Your task to perform on an android device: What's on my calendar today? Image 0: 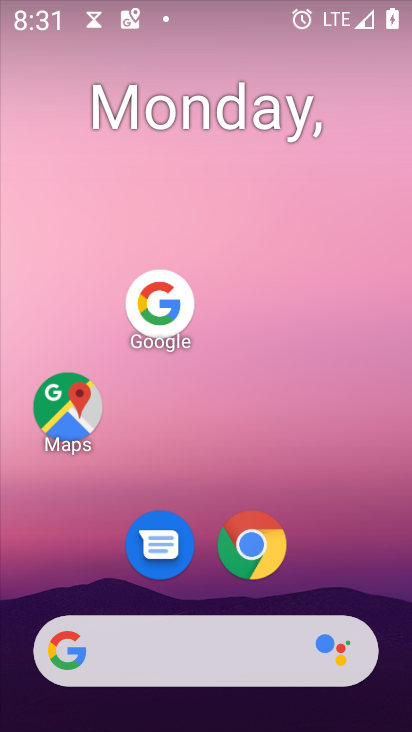
Step 0: press home button
Your task to perform on an android device: What's on my calendar today? Image 1: 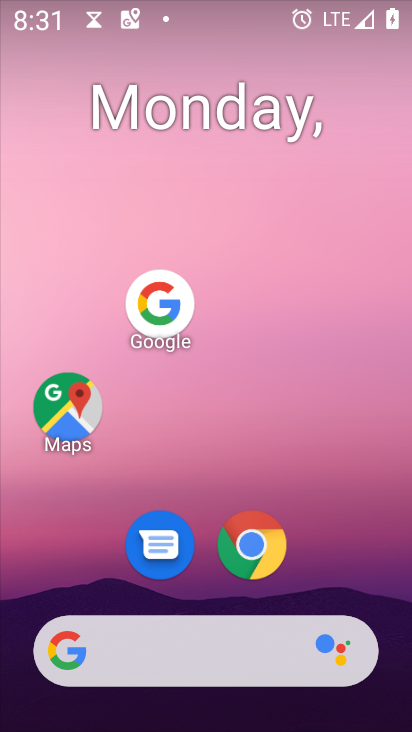
Step 1: drag from (192, 643) to (343, 104)
Your task to perform on an android device: What's on my calendar today? Image 2: 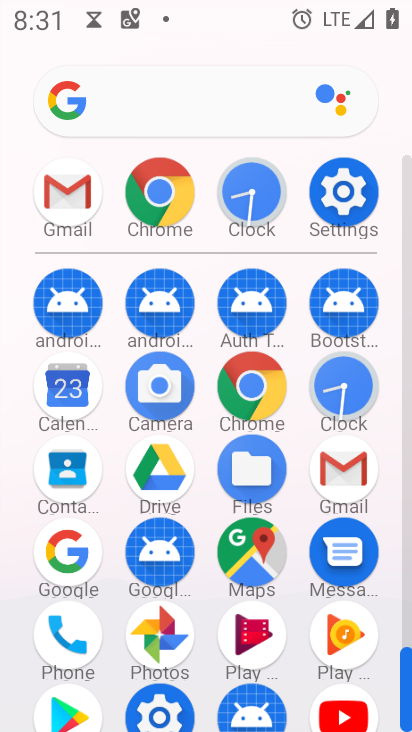
Step 2: click (80, 390)
Your task to perform on an android device: What's on my calendar today? Image 3: 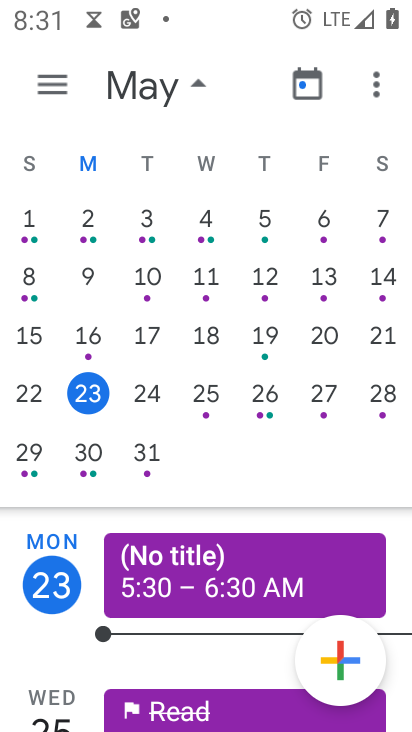
Step 3: click (84, 400)
Your task to perform on an android device: What's on my calendar today? Image 4: 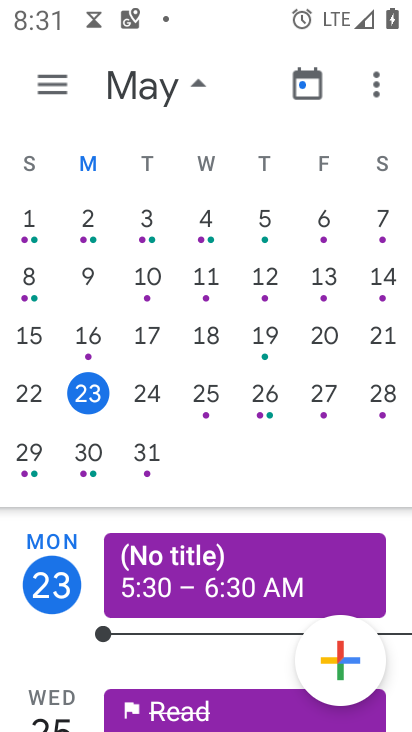
Step 4: click (62, 81)
Your task to perform on an android device: What's on my calendar today? Image 5: 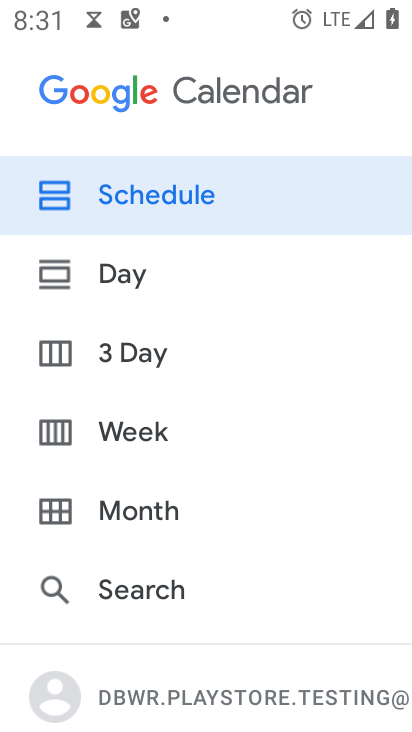
Step 5: click (124, 284)
Your task to perform on an android device: What's on my calendar today? Image 6: 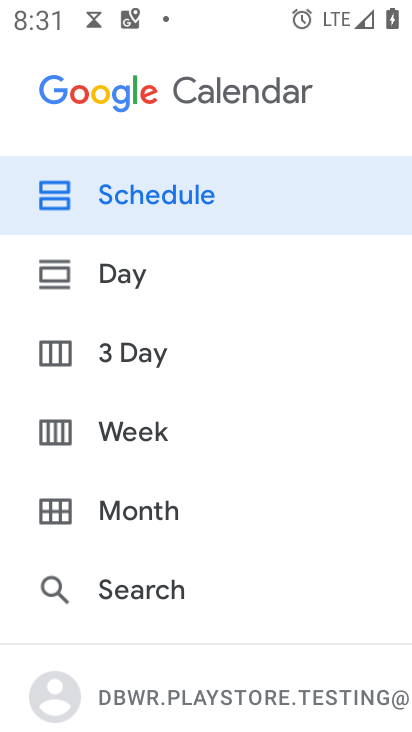
Step 6: click (137, 270)
Your task to perform on an android device: What's on my calendar today? Image 7: 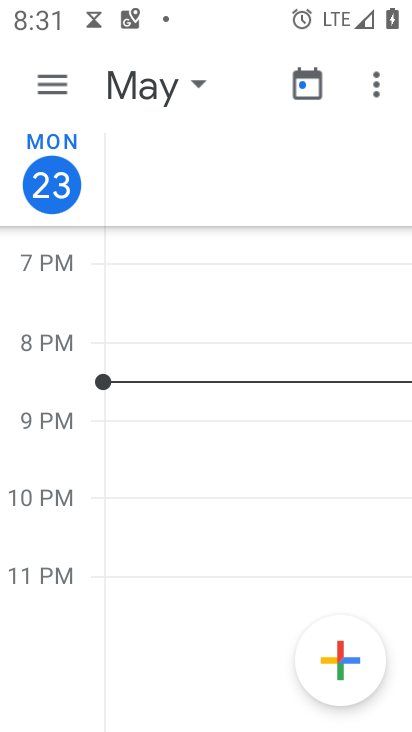
Step 7: click (48, 81)
Your task to perform on an android device: What's on my calendar today? Image 8: 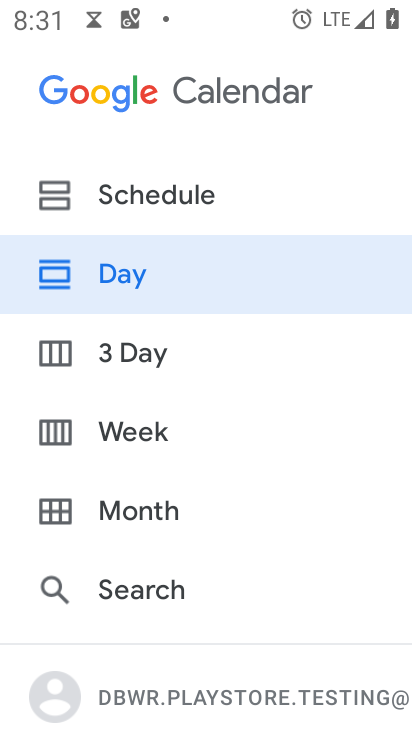
Step 8: click (178, 205)
Your task to perform on an android device: What's on my calendar today? Image 9: 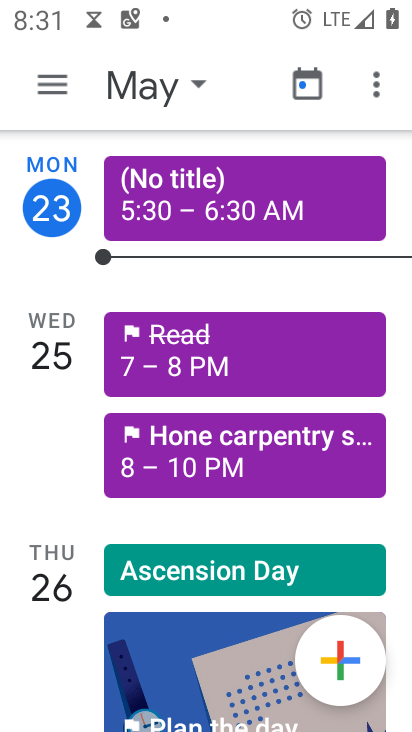
Step 9: click (260, 216)
Your task to perform on an android device: What's on my calendar today? Image 10: 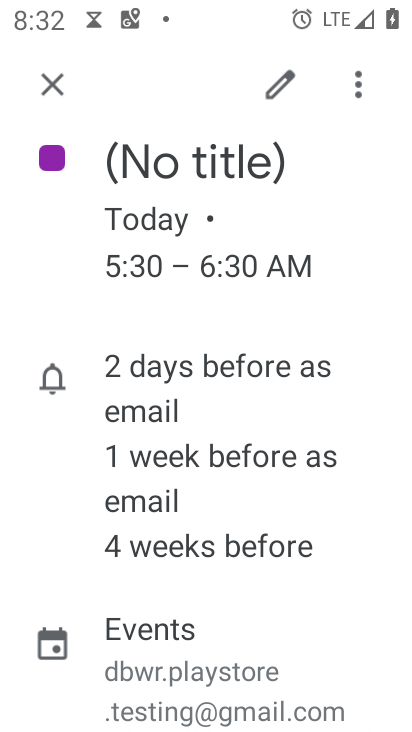
Step 10: task complete